Your task to perform on an android device: turn pop-ups off in chrome Image 0: 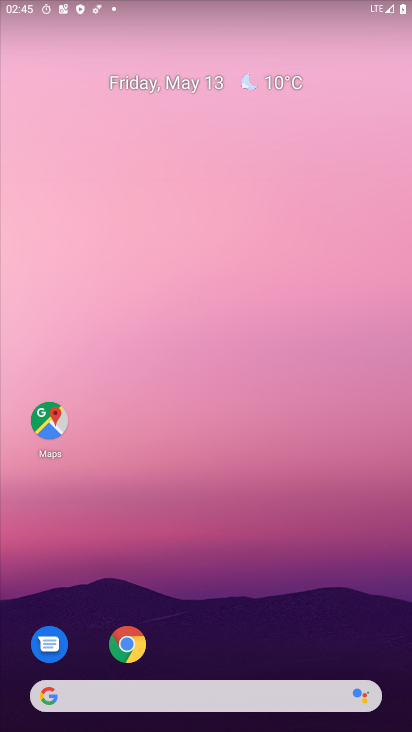
Step 0: drag from (201, 623) to (304, 17)
Your task to perform on an android device: turn pop-ups off in chrome Image 1: 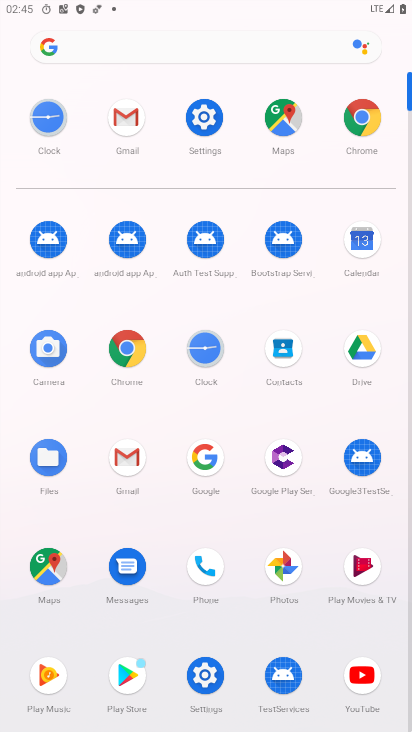
Step 1: click (131, 360)
Your task to perform on an android device: turn pop-ups off in chrome Image 2: 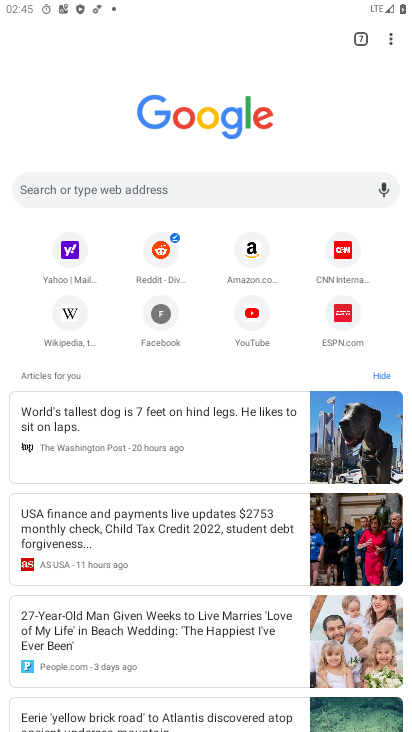
Step 2: drag from (393, 36) to (260, 332)
Your task to perform on an android device: turn pop-ups off in chrome Image 3: 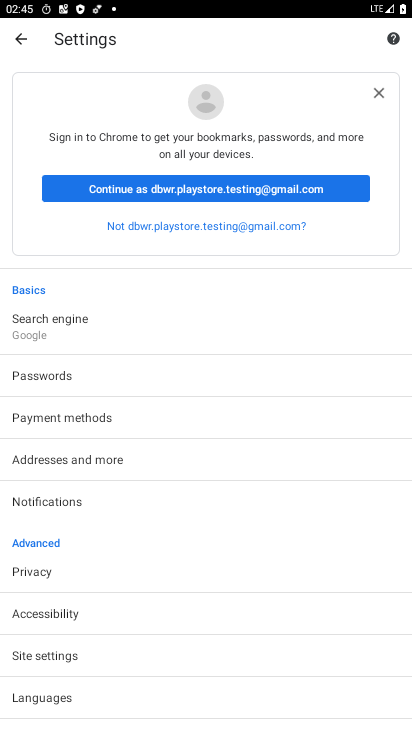
Step 3: click (76, 665)
Your task to perform on an android device: turn pop-ups off in chrome Image 4: 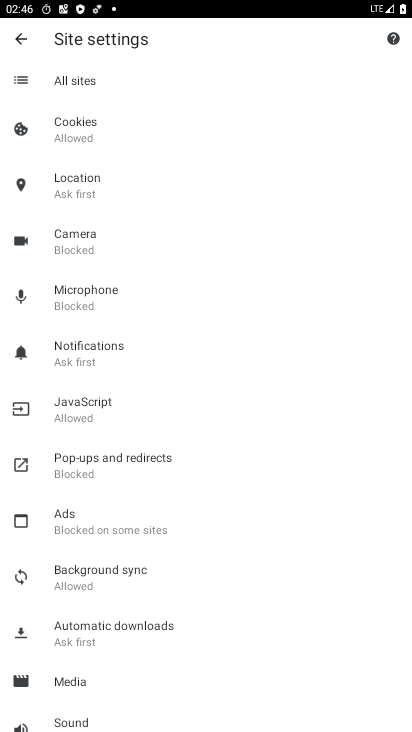
Step 4: click (136, 468)
Your task to perform on an android device: turn pop-ups off in chrome Image 5: 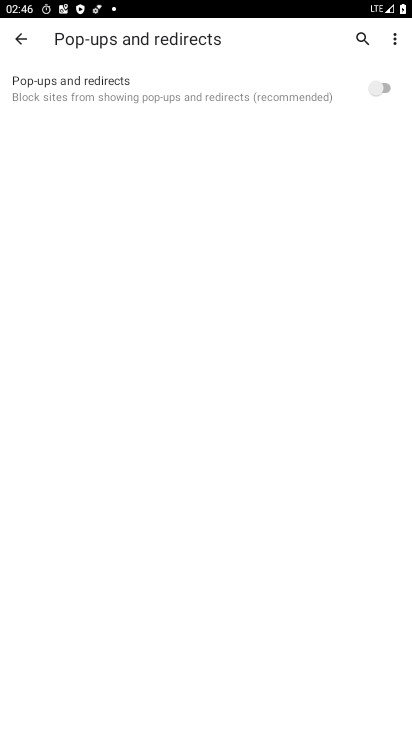
Step 5: task complete